Your task to perform on an android device: Open the phone app and click the voicemail tab. Image 0: 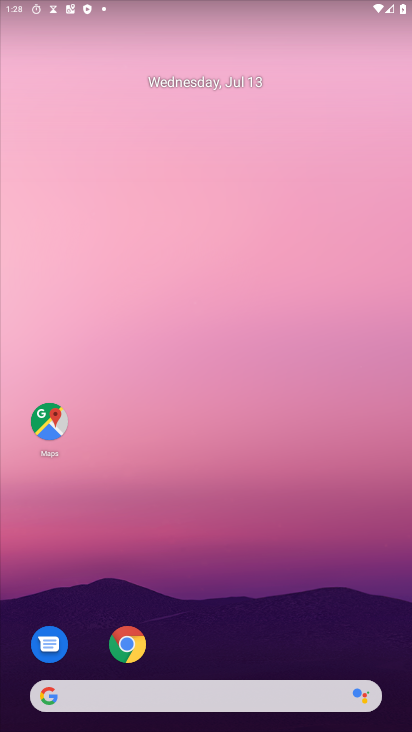
Step 0: press home button
Your task to perform on an android device: Open the phone app and click the voicemail tab. Image 1: 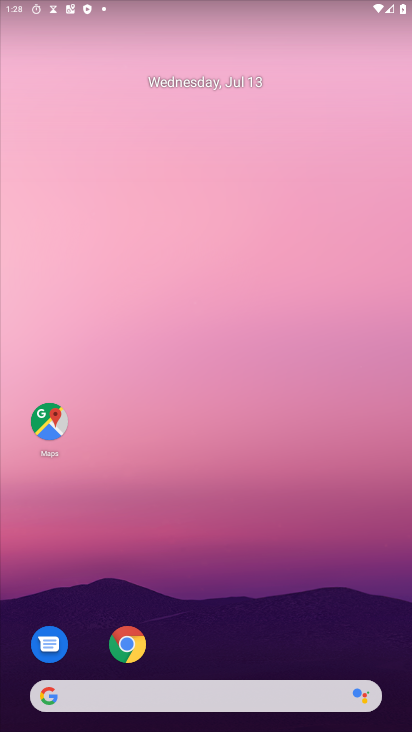
Step 1: drag from (284, 582) to (294, 42)
Your task to perform on an android device: Open the phone app and click the voicemail tab. Image 2: 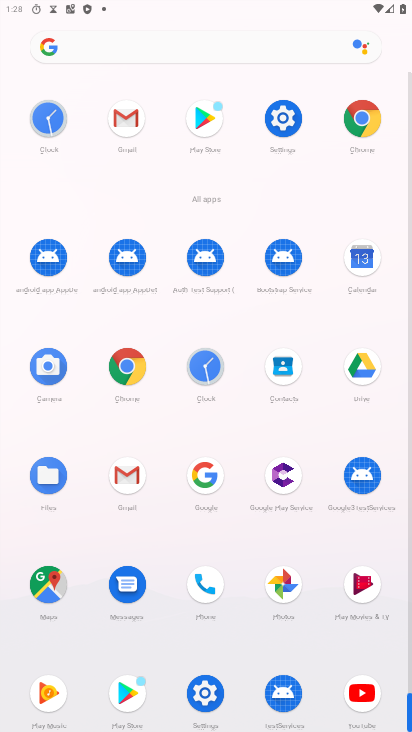
Step 2: click (205, 588)
Your task to perform on an android device: Open the phone app and click the voicemail tab. Image 3: 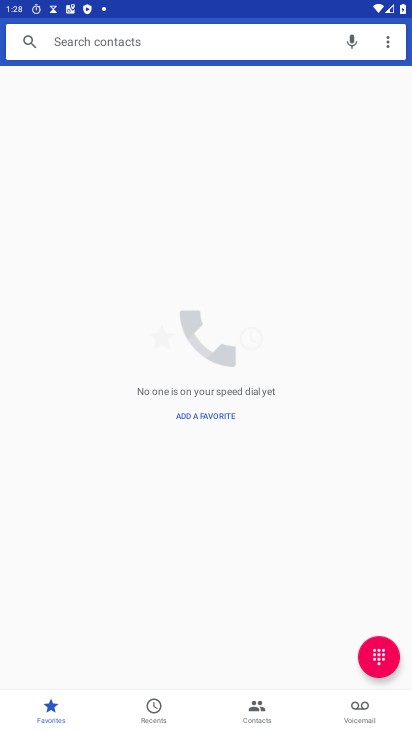
Step 3: click (361, 712)
Your task to perform on an android device: Open the phone app and click the voicemail tab. Image 4: 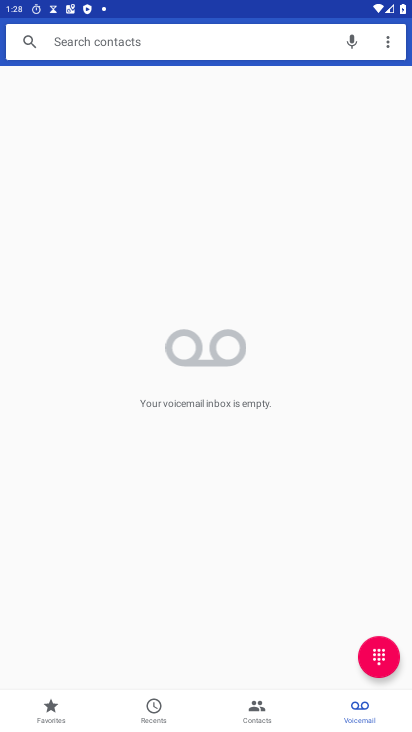
Step 4: task complete